Your task to perform on an android device: Add "bose soundlink mini" to the cart on ebay, then select checkout. Image 0: 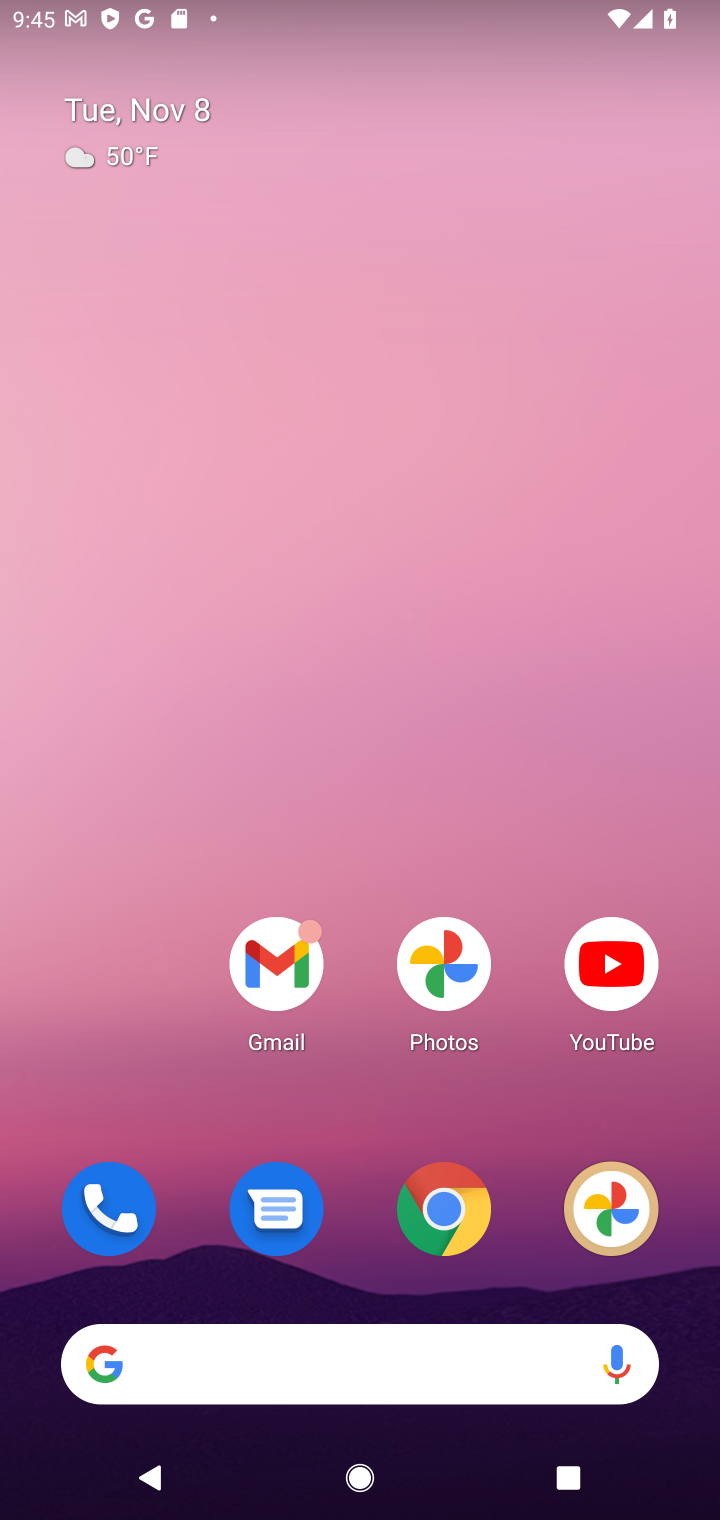
Step 0: click (441, 1190)
Your task to perform on an android device: Add "bose soundlink mini" to the cart on ebay, then select checkout. Image 1: 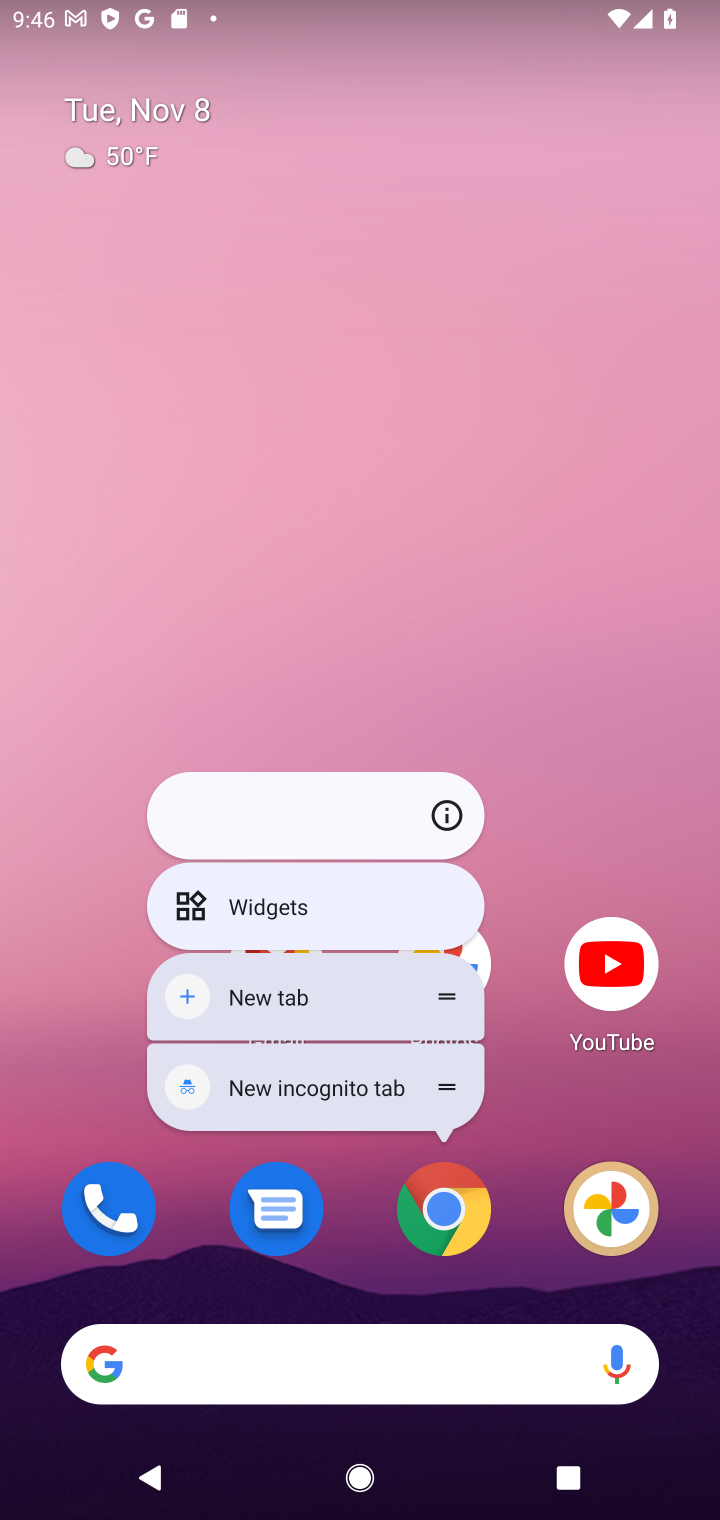
Step 1: click (445, 1214)
Your task to perform on an android device: Add "bose soundlink mini" to the cart on ebay, then select checkout. Image 2: 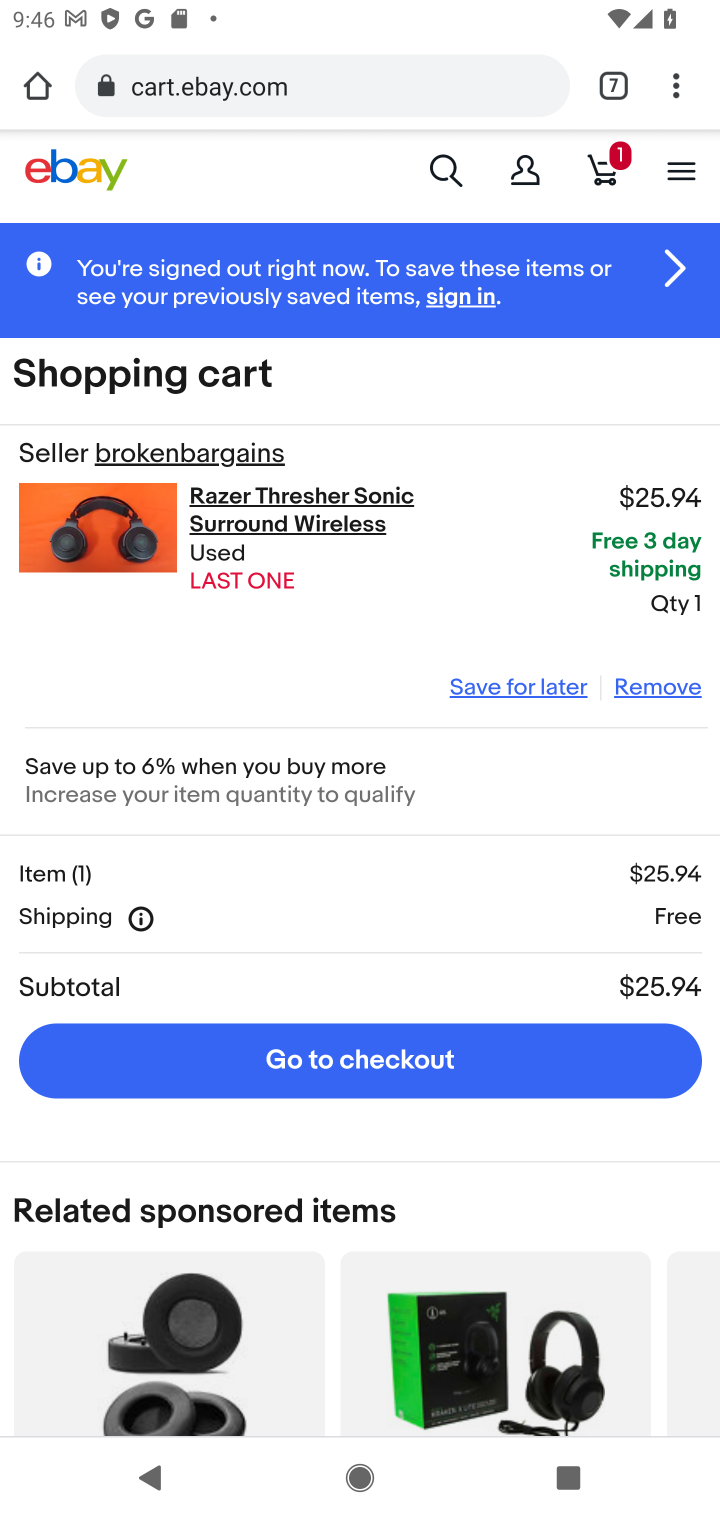
Step 2: click (454, 165)
Your task to perform on an android device: Add "bose soundlink mini" to the cart on ebay, then select checkout. Image 3: 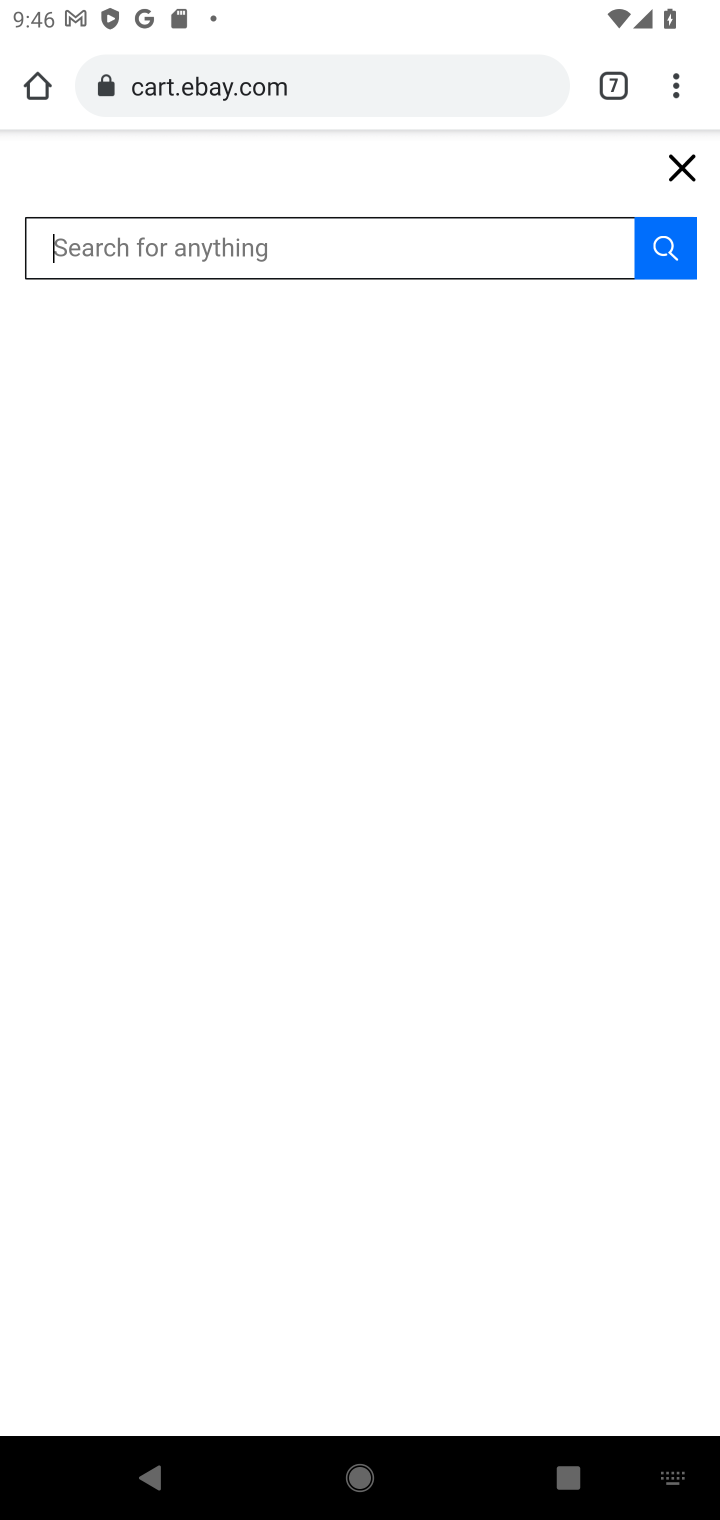
Step 3: type "bose soundlink mini"
Your task to perform on an android device: Add "bose soundlink mini" to the cart on ebay, then select checkout. Image 4: 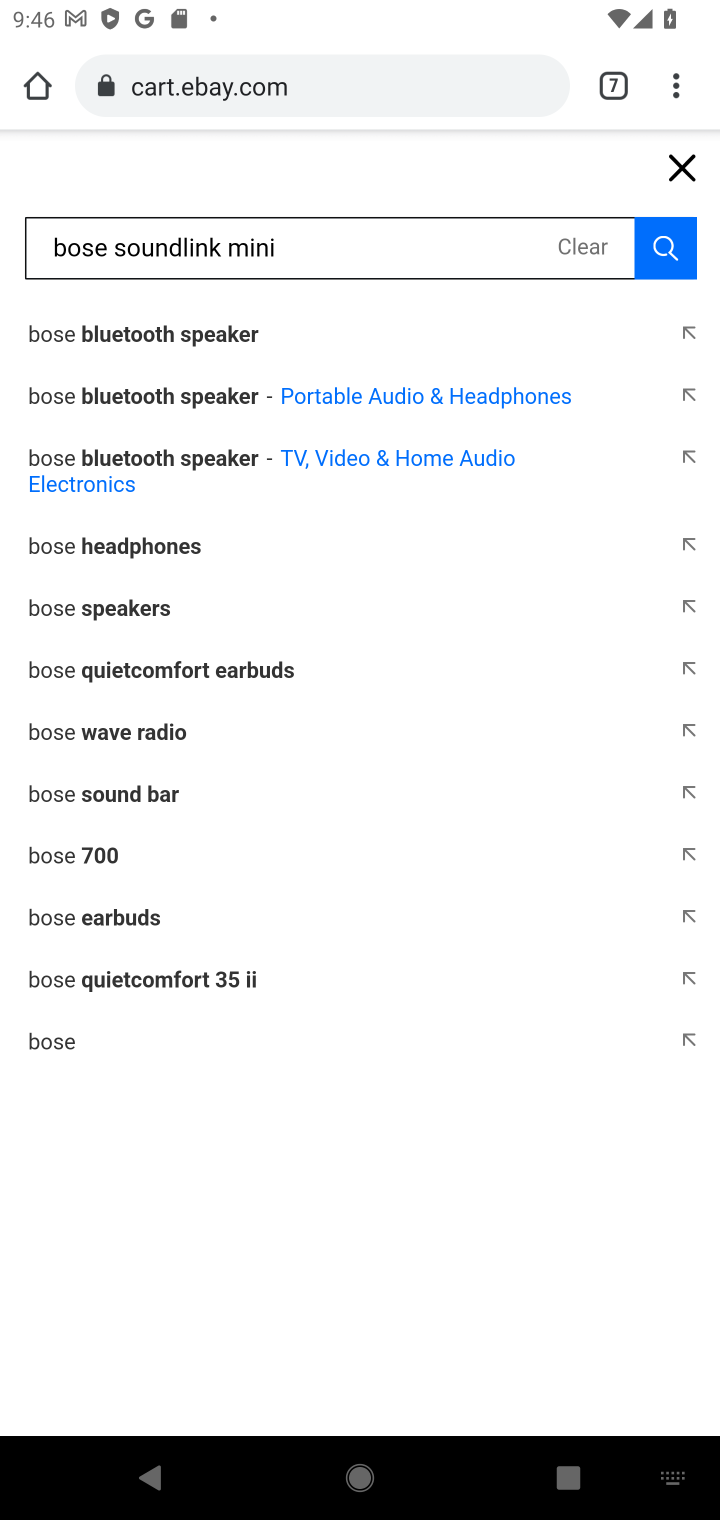
Step 4: click (186, 400)
Your task to perform on an android device: Add "bose soundlink mini" to the cart on ebay, then select checkout. Image 5: 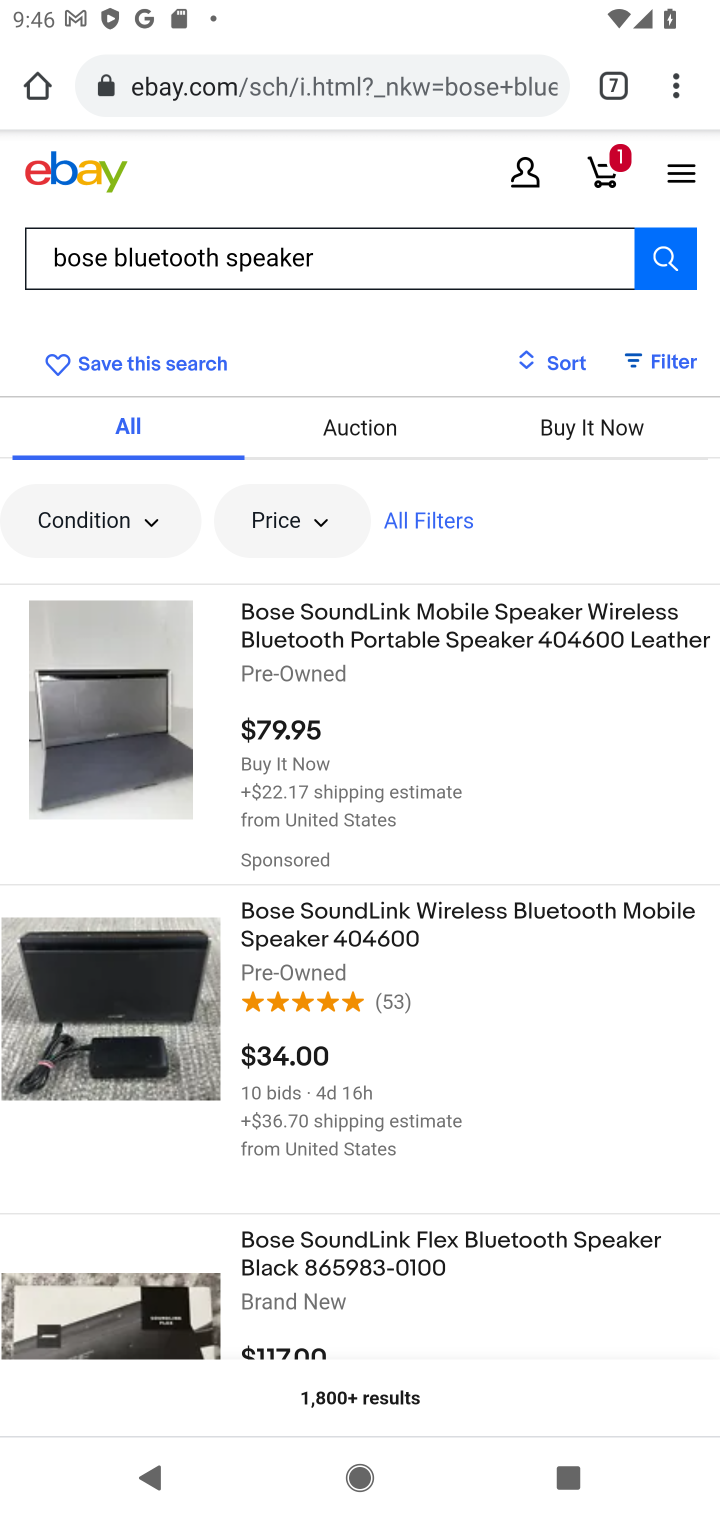
Step 5: click (339, 614)
Your task to perform on an android device: Add "bose soundlink mini" to the cart on ebay, then select checkout. Image 6: 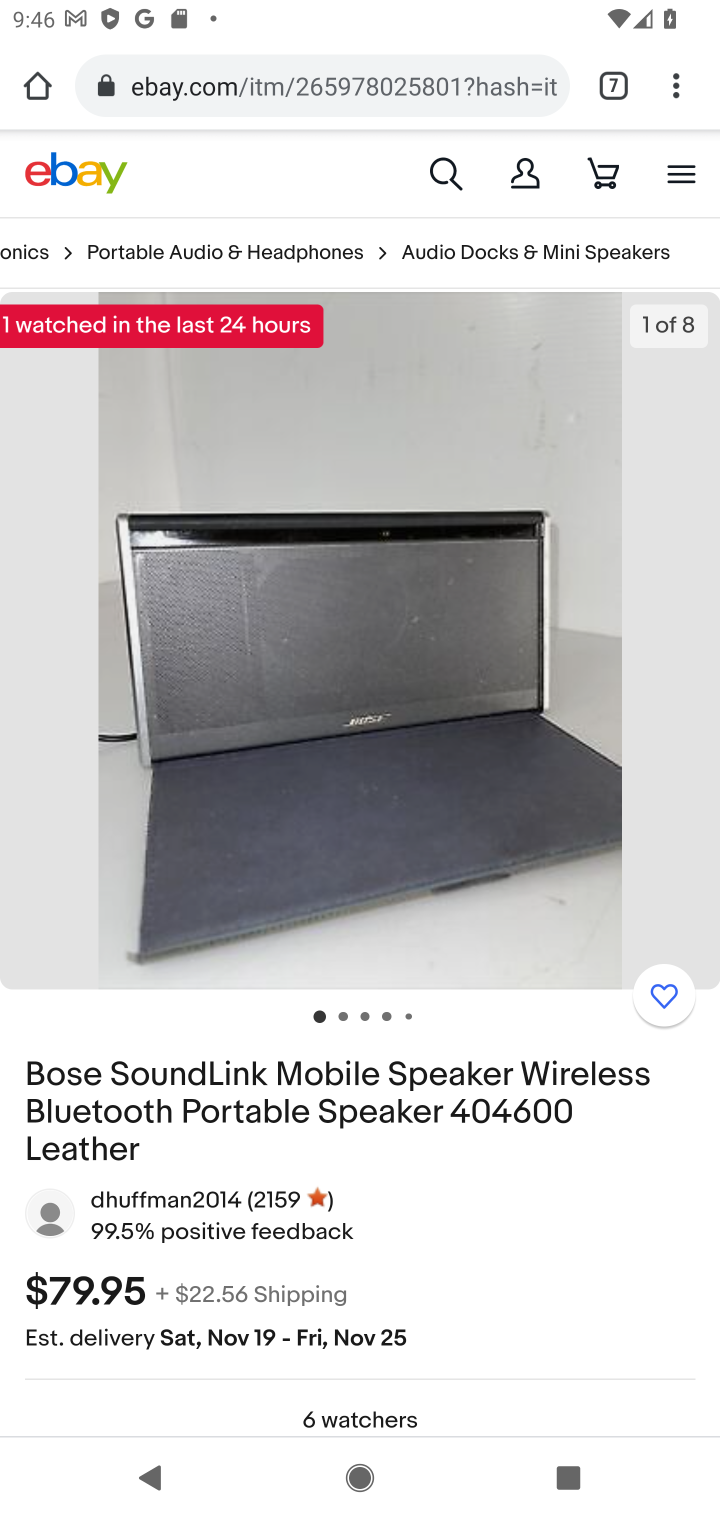
Step 6: drag from (530, 1155) to (690, 166)
Your task to perform on an android device: Add "bose soundlink mini" to the cart on ebay, then select checkout. Image 7: 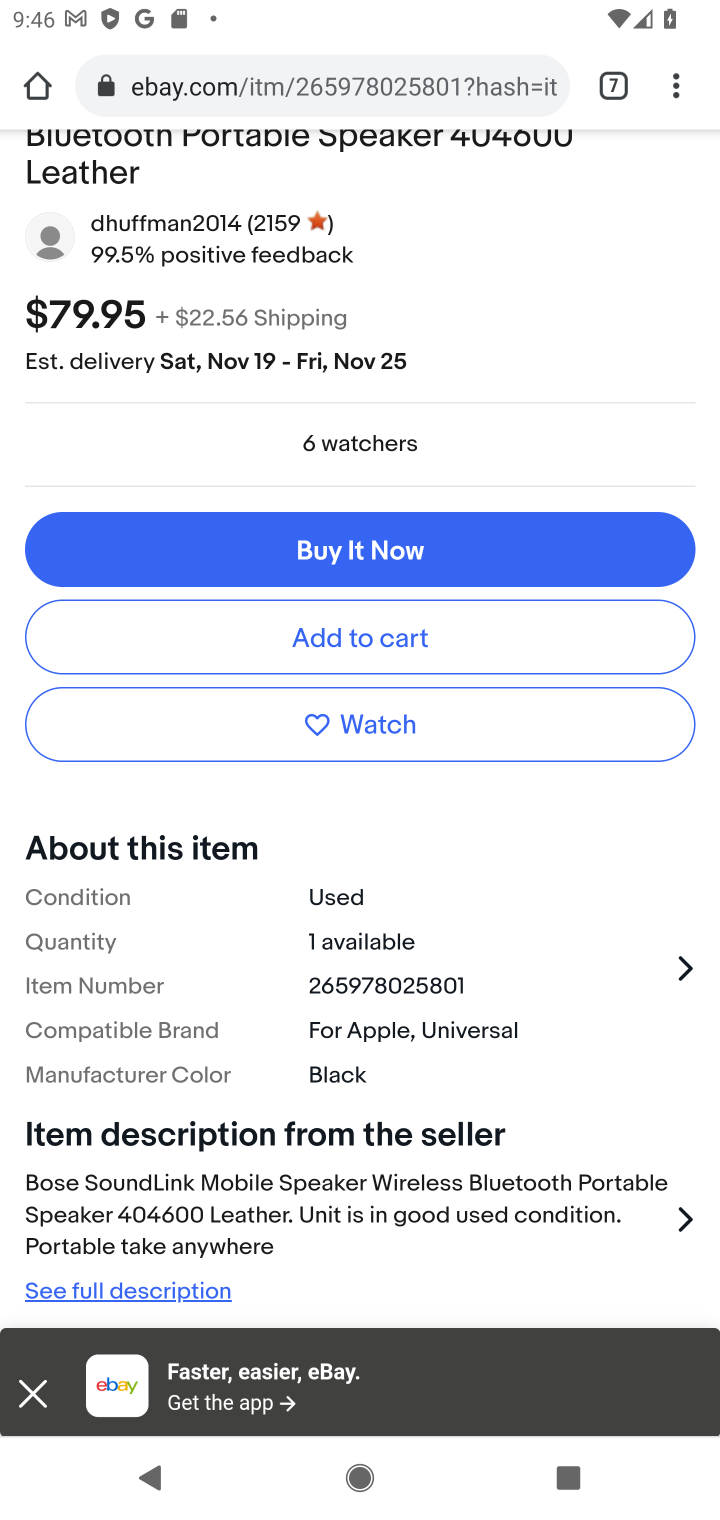
Step 7: click (432, 633)
Your task to perform on an android device: Add "bose soundlink mini" to the cart on ebay, then select checkout. Image 8: 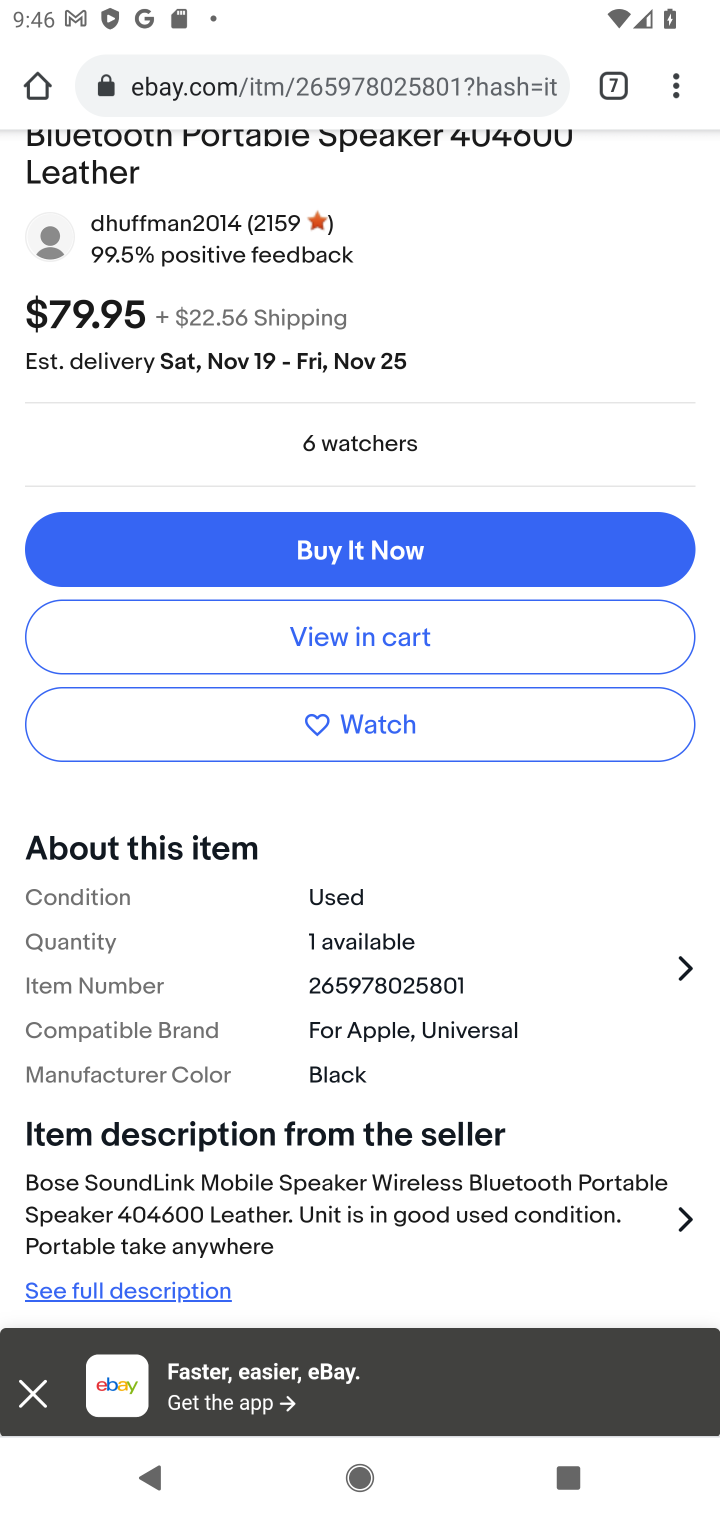
Step 8: click (373, 636)
Your task to perform on an android device: Add "bose soundlink mini" to the cart on ebay, then select checkout. Image 9: 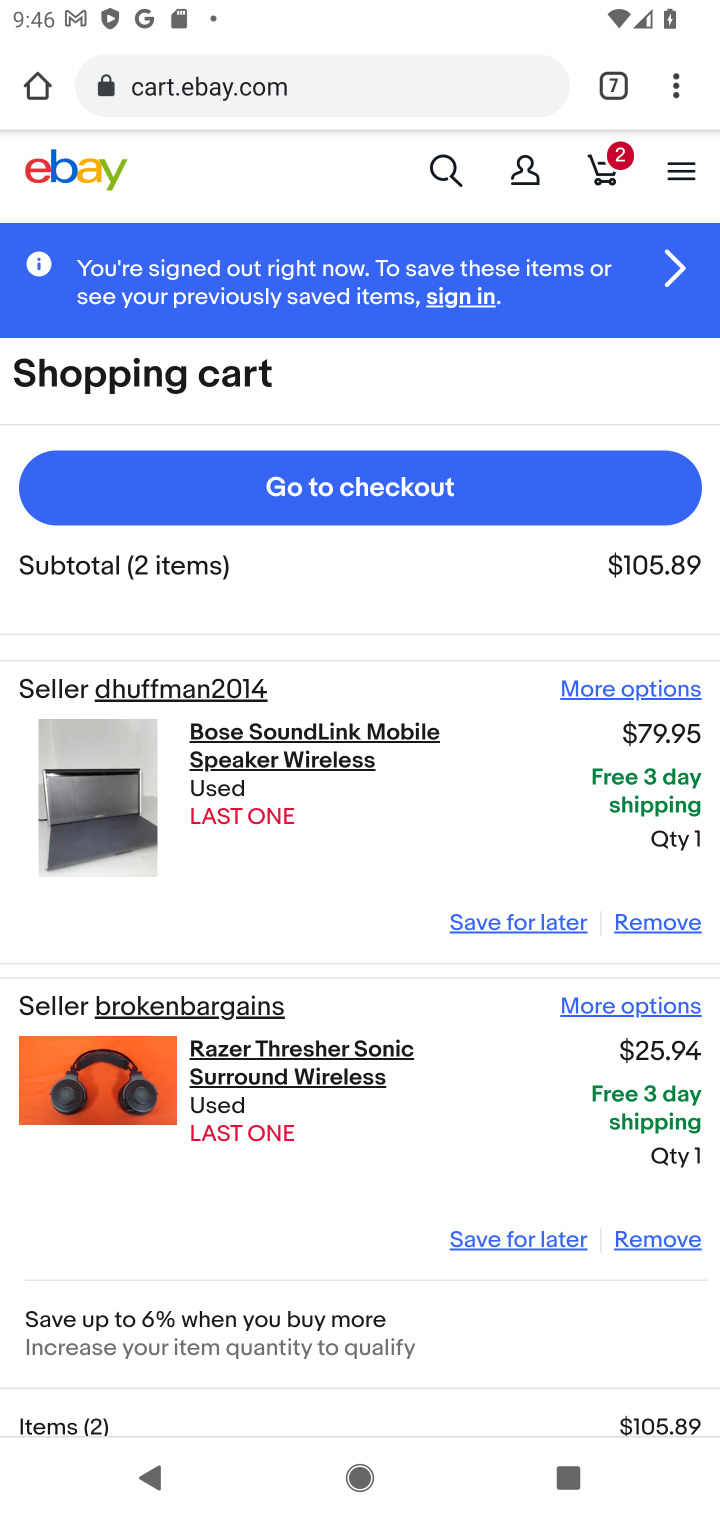
Step 9: click (342, 496)
Your task to perform on an android device: Add "bose soundlink mini" to the cart on ebay, then select checkout. Image 10: 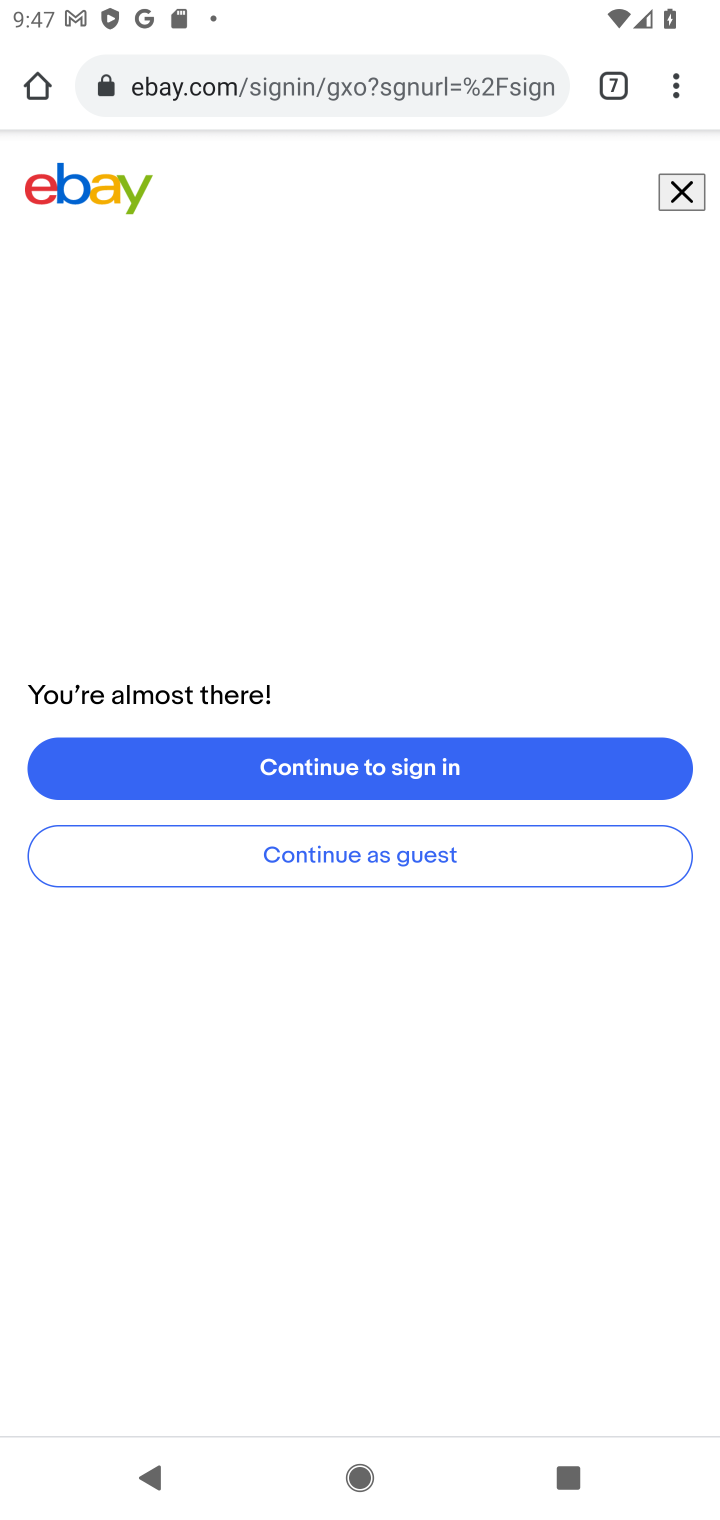
Step 10: task complete